Your task to perform on an android device: Open my contact list Image 0: 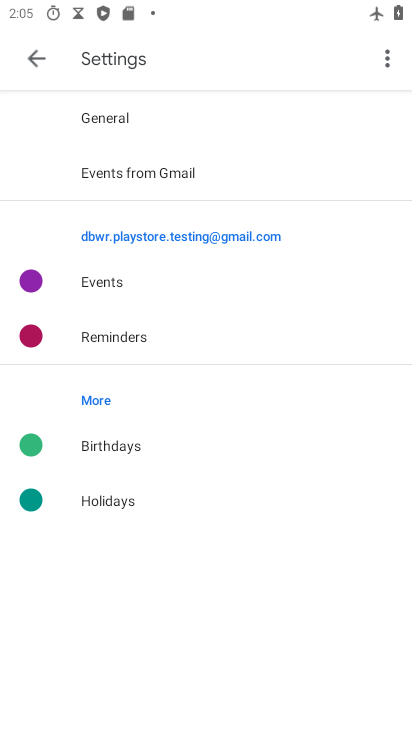
Step 0: press home button
Your task to perform on an android device: Open my contact list Image 1: 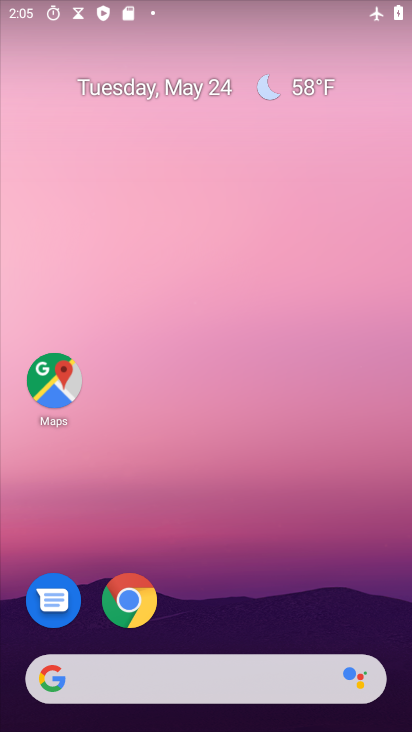
Step 1: drag from (278, 589) to (159, 8)
Your task to perform on an android device: Open my contact list Image 2: 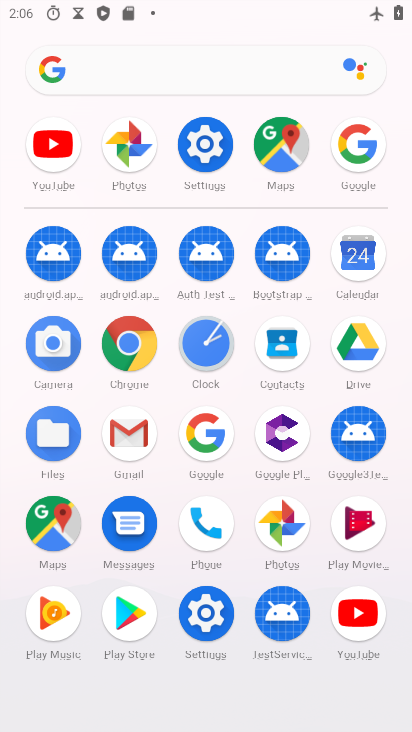
Step 2: click (288, 358)
Your task to perform on an android device: Open my contact list Image 3: 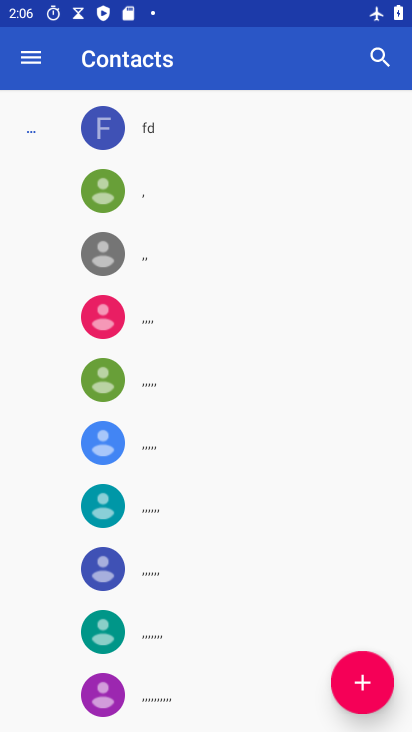
Step 3: task complete